Your task to perform on an android device: stop showing notifications on the lock screen Image 0: 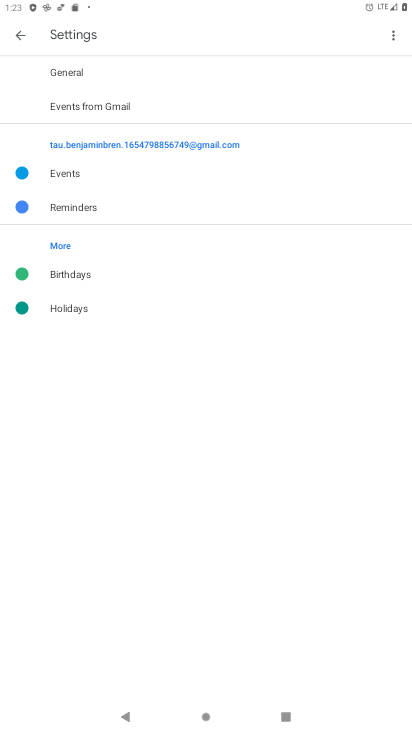
Step 0: press home button
Your task to perform on an android device: stop showing notifications on the lock screen Image 1: 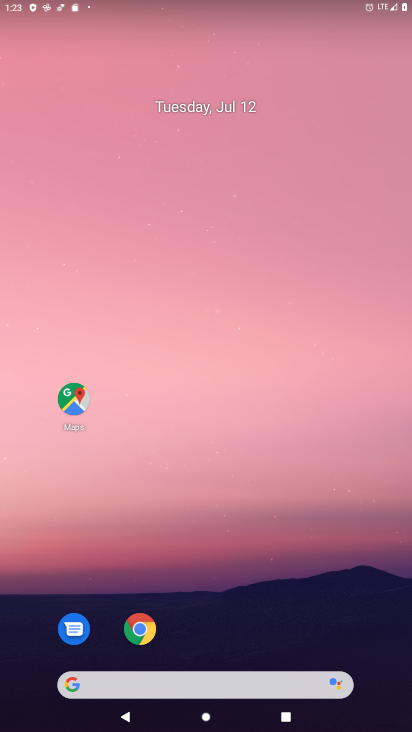
Step 1: drag from (250, 691) to (297, 127)
Your task to perform on an android device: stop showing notifications on the lock screen Image 2: 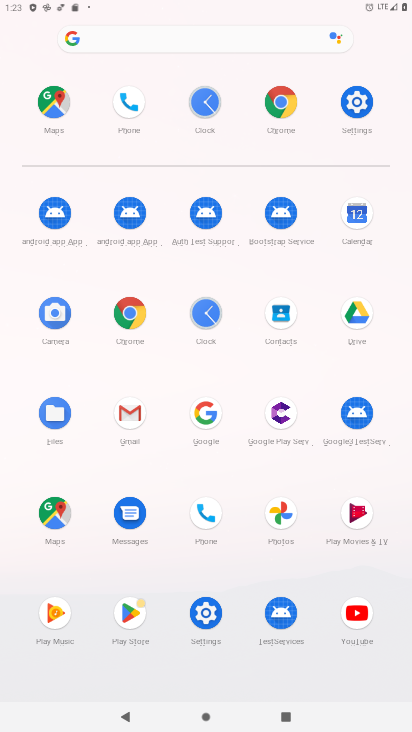
Step 2: click (352, 100)
Your task to perform on an android device: stop showing notifications on the lock screen Image 3: 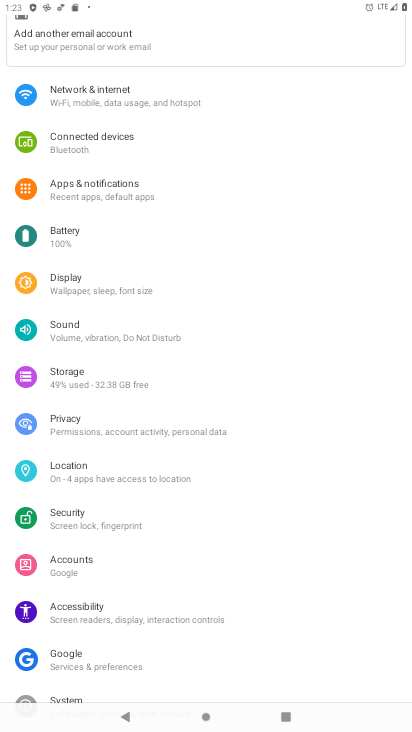
Step 3: click (94, 182)
Your task to perform on an android device: stop showing notifications on the lock screen Image 4: 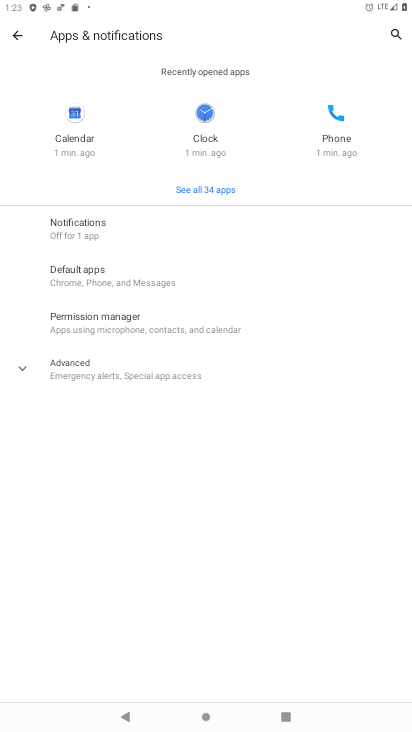
Step 4: click (114, 234)
Your task to perform on an android device: stop showing notifications on the lock screen Image 5: 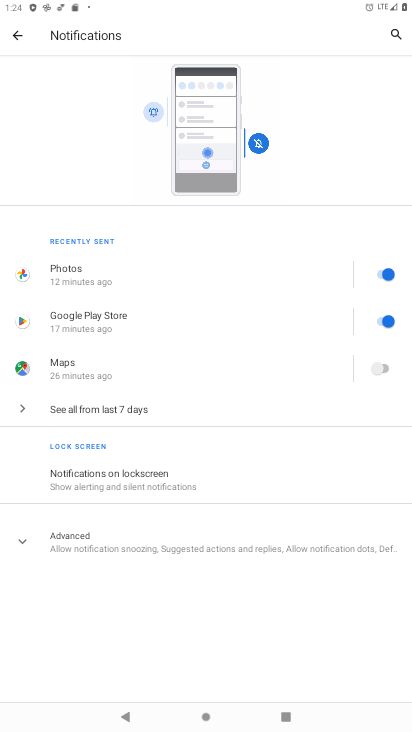
Step 5: click (141, 535)
Your task to perform on an android device: stop showing notifications on the lock screen Image 6: 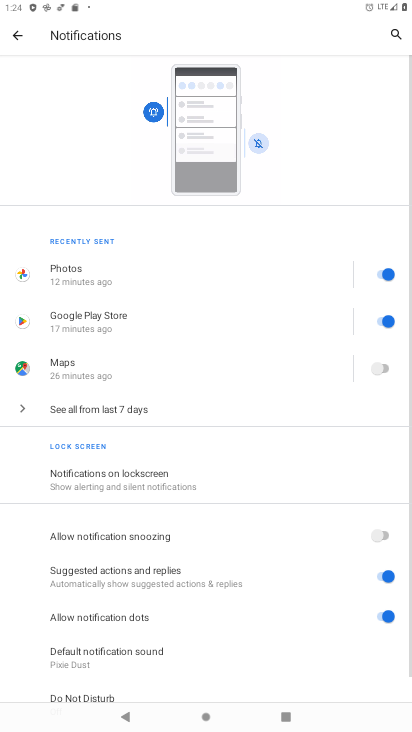
Step 6: click (164, 478)
Your task to perform on an android device: stop showing notifications on the lock screen Image 7: 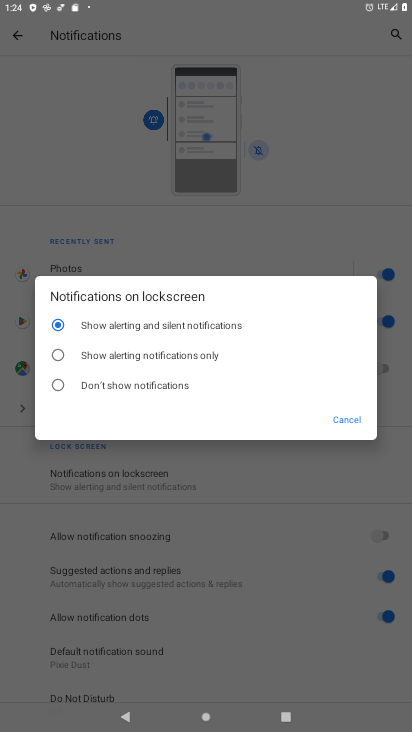
Step 7: click (97, 387)
Your task to perform on an android device: stop showing notifications on the lock screen Image 8: 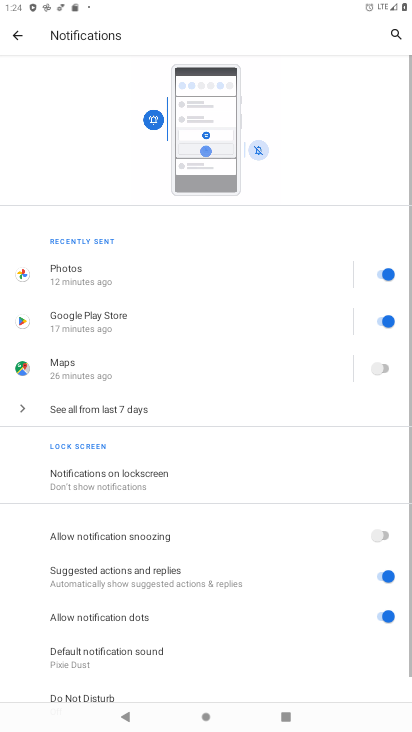
Step 8: task complete